Your task to perform on an android device: Open settings on Google Maps Image 0: 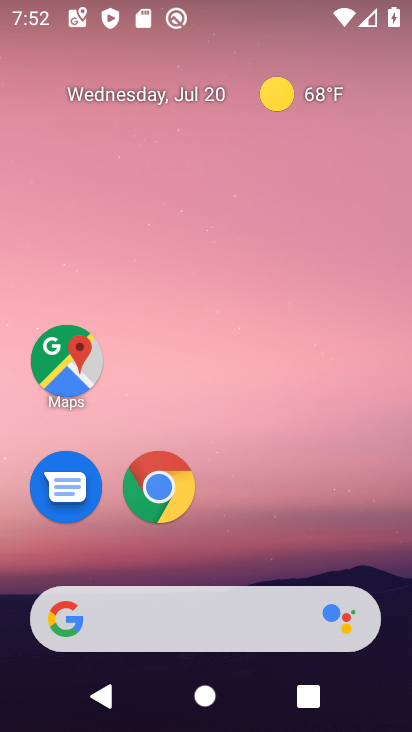
Step 0: drag from (341, 537) to (411, 263)
Your task to perform on an android device: Open settings on Google Maps Image 1: 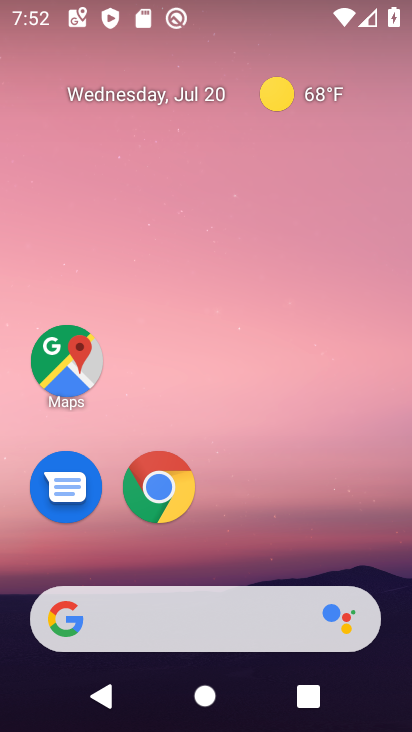
Step 1: drag from (334, 234) to (320, 13)
Your task to perform on an android device: Open settings on Google Maps Image 2: 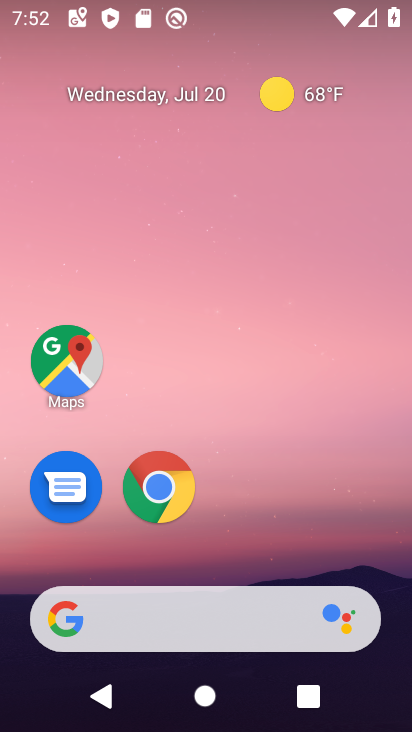
Step 2: drag from (348, 552) to (355, 5)
Your task to perform on an android device: Open settings on Google Maps Image 3: 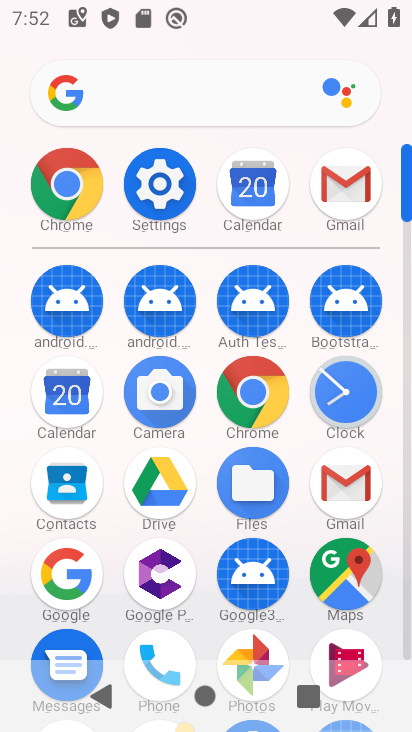
Step 3: click (344, 577)
Your task to perform on an android device: Open settings on Google Maps Image 4: 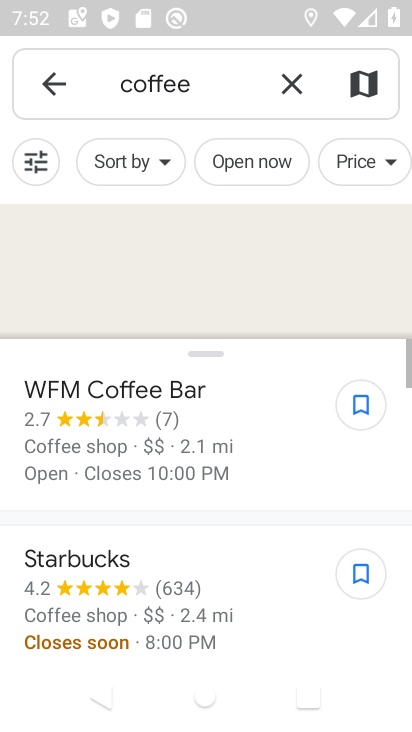
Step 4: press back button
Your task to perform on an android device: Open settings on Google Maps Image 5: 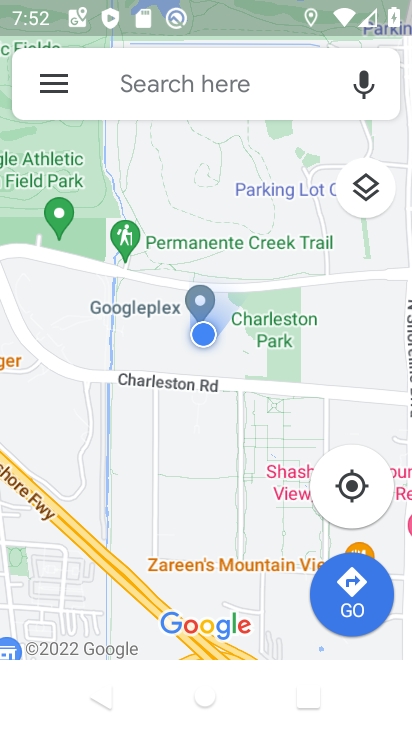
Step 5: click (47, 84)
Your task to perform on an android device: Open settings on Google Maps Image 6: 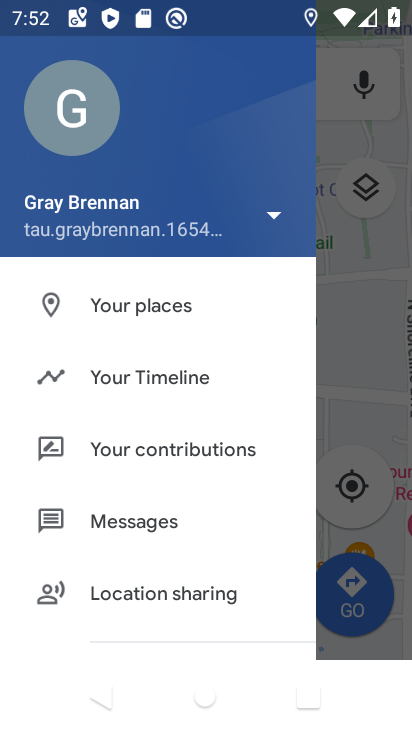
Step 6: drag from (266, 548) to (257, 383)
Your task to perform on an android device: Open settings on Google Maps Image 7: 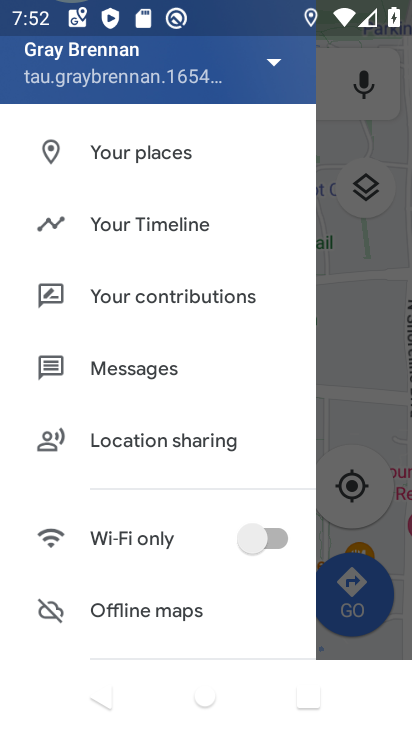
Step 7: drag from (227, 589) to (241, 364)
Your task to perform on an android device: Open settings on Google Maps Image 8: 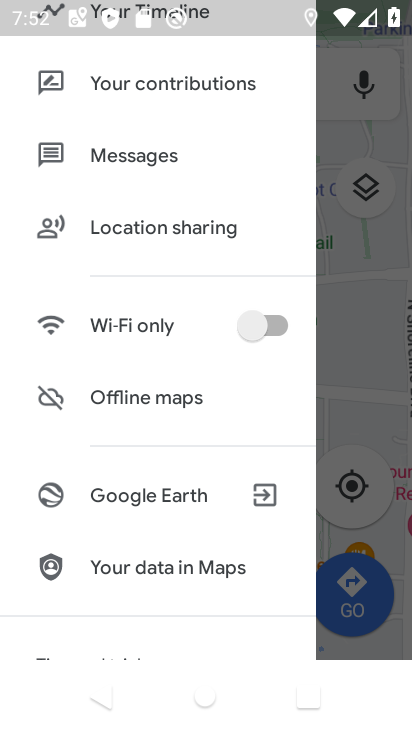
Step 8: drag from (226, 622) to (230, 364)
Your task to perform on an android device: Open settings on Google Maps Image 9: 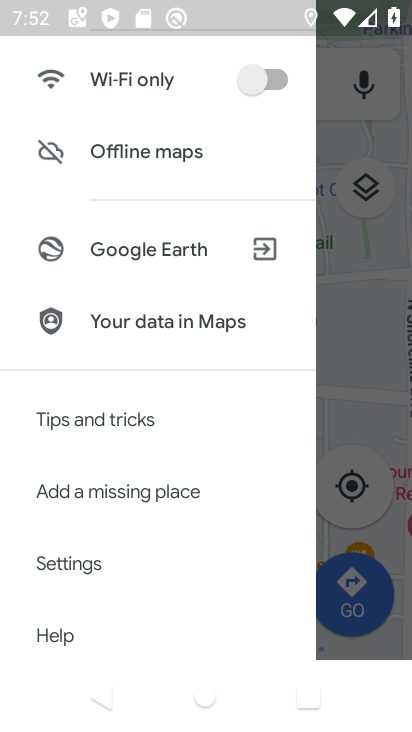
Step 9: drag from (193, 597) to (201, 416)
Your task to perform on an android device: Open settings on Google Maps Image 10: 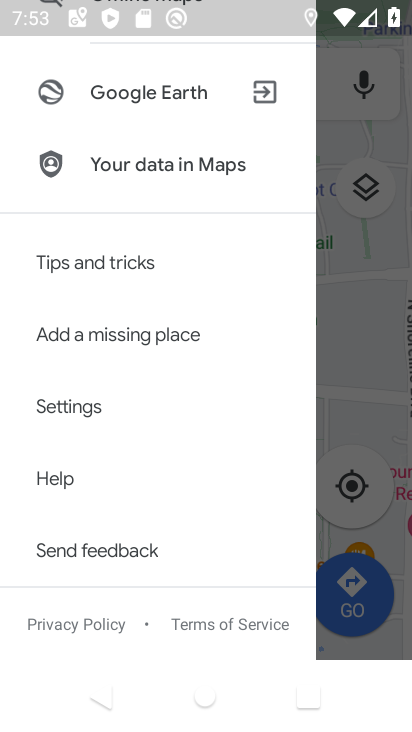
Step 10: click (98, 412)
Your task to perform on an android device: Open settings on Google Maps Image 11: 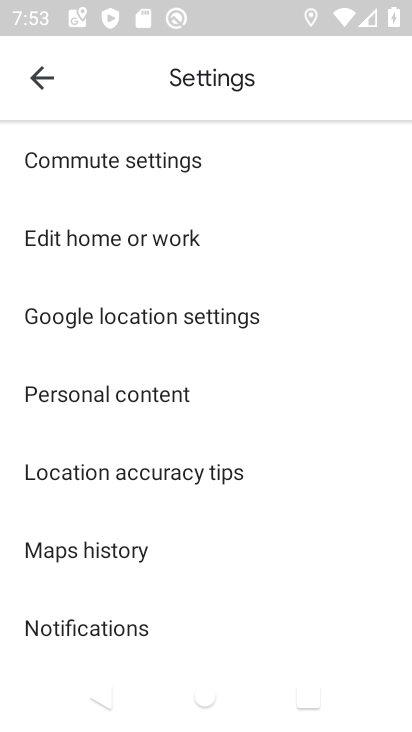
Step 11: task complete